Your task to perform on an android device: add a label to a message in the gmail app Image 0: 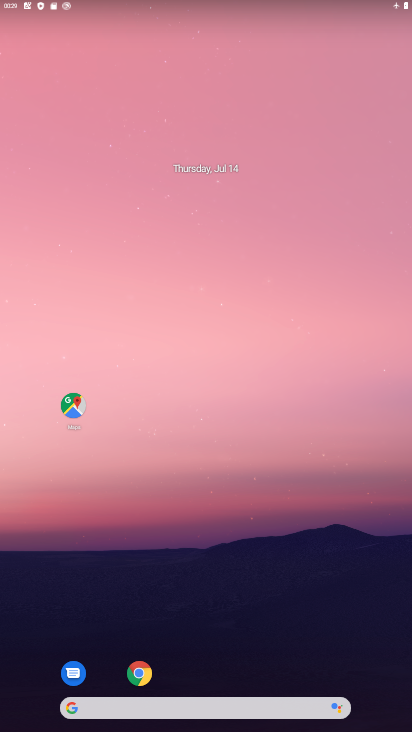
Step 0: drag from (216, 643) to (209, 149)
Your task to perform on an android device: add a label to a message in the gmail app Image 1: 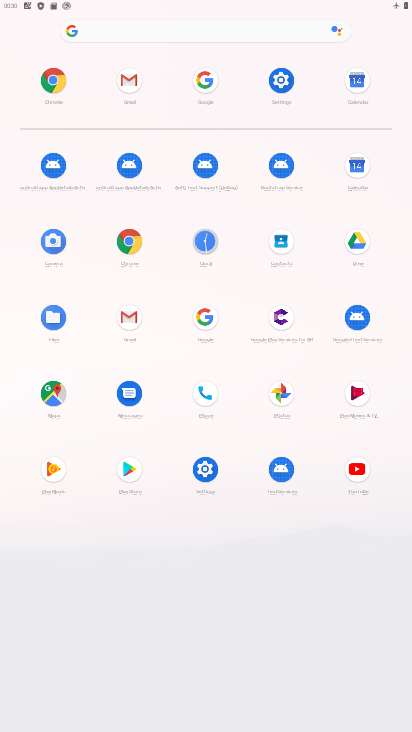
Step 1: click (143, 79)
Your task to perform on an android device: add a label to a message in the gmail app Image 2: 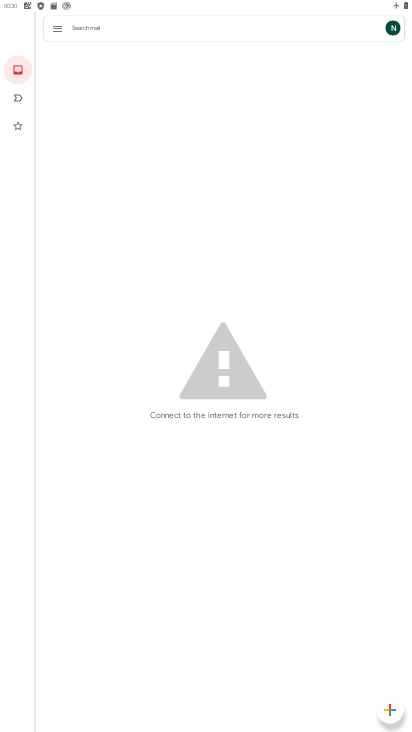
Step 2: click (54, 24)
Your task to perform on an android device: add a label to a message in the gmail app Image 3: 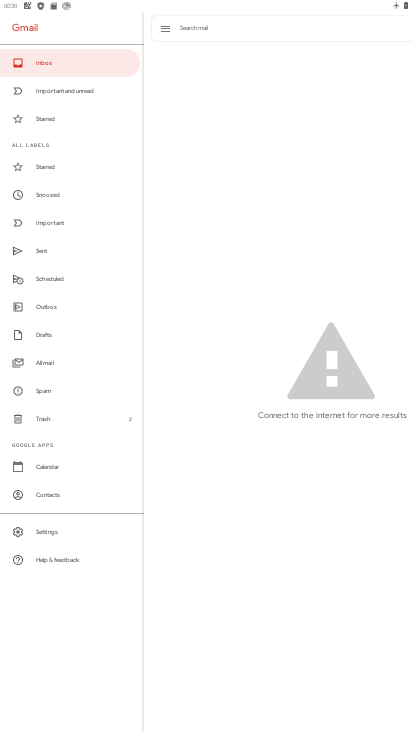
Step 3: click (59, 365)
Your task to perform on an android device: add a label to a message in the gmail app Image 4: 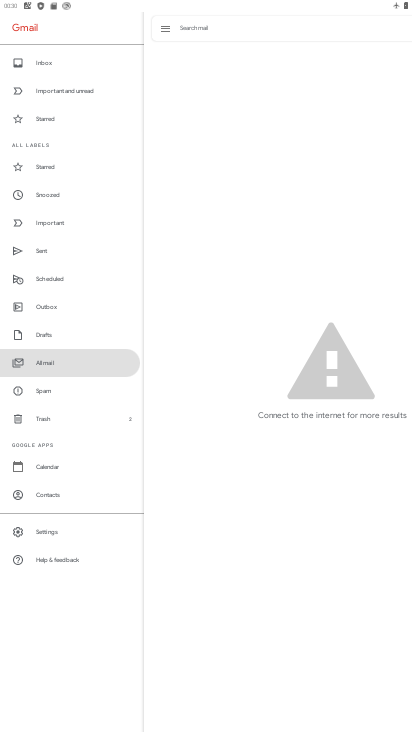
Step 4: task complete